Your task to perform on an android device: toggle show notifications on the lock screen Image 0: 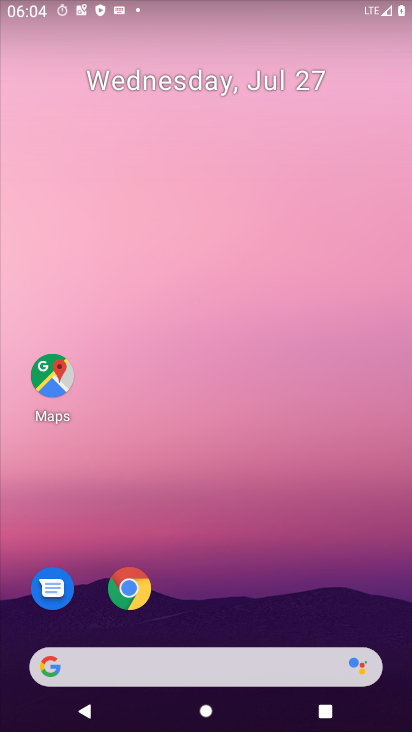
Step 0: drag from (229, 656) to (247, 79)
Your task to perform on an android device: toggle show notifications on the lock screen Image 1: 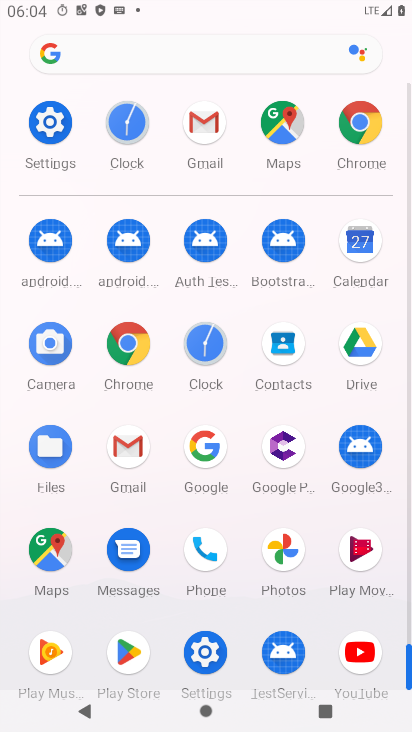
Step 1: click (58, 123)
Your task to perform on an android device: toggle show notifications on the lock screen Image 2: 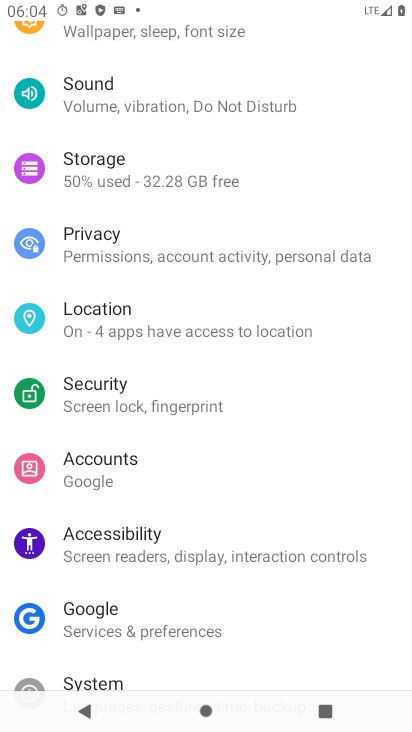
Step 2: drag from (128, 175) to (95, 710)
Your task to perform on an android device: toggle show notifications on the lock screen Image 3: 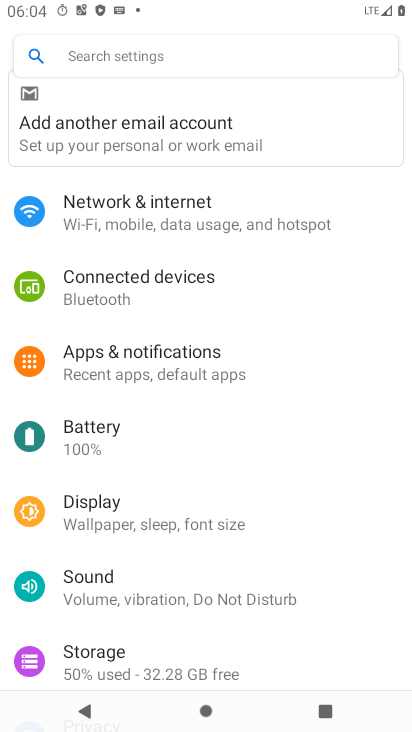
Step 3: click (128, 353)
Your task to perform on an android device: toggle show notifications on the lock screen Image 4: 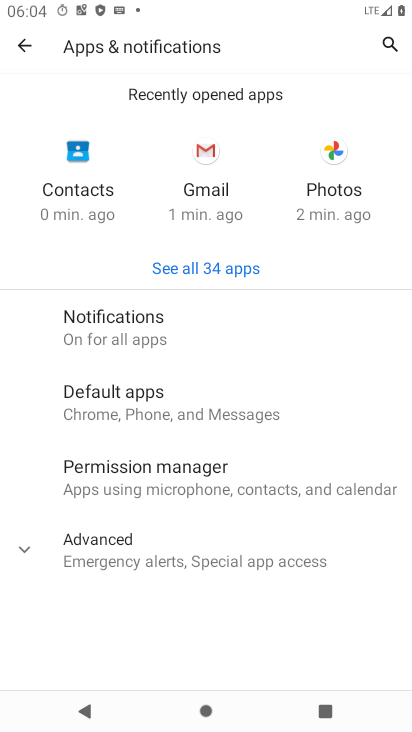
Step 4: click (160, 329)
Your task to perform on an android device: toggle show notifications on the lock screen Image 5: 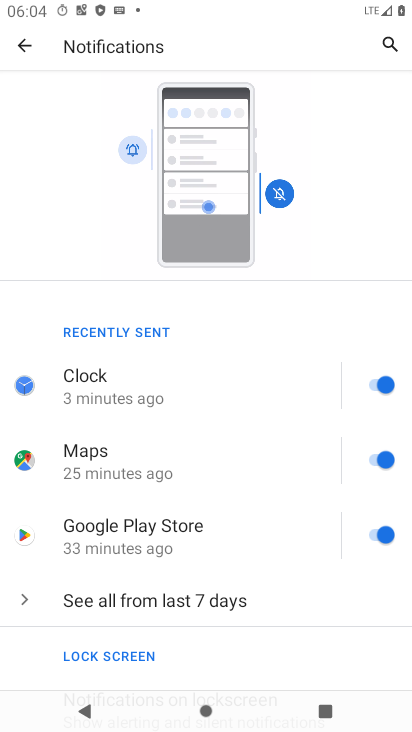
Step 5: drag from (146, 672) to (167, 269)
Your task to perform on an android device: toggle show notifications on the lock screen Image 6: 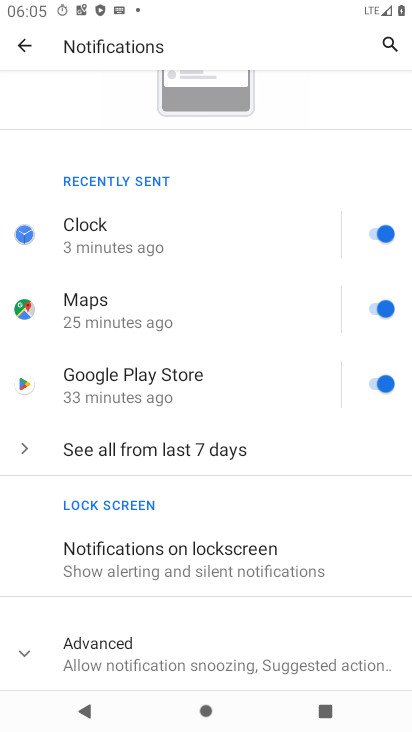
Step 6: click (183, 551)
Your task to perform on an android device: toggle show notifications on the lock screen Image 7: 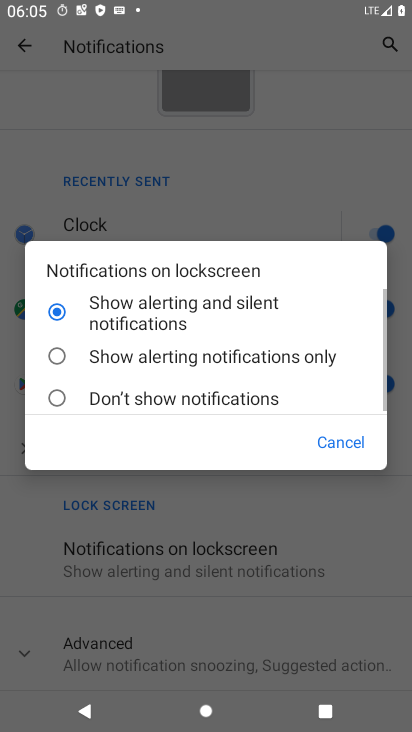
Step 7: click (61, 355)
Your task to perform on an android device: toggle show notifications on the lock screen Image 8: 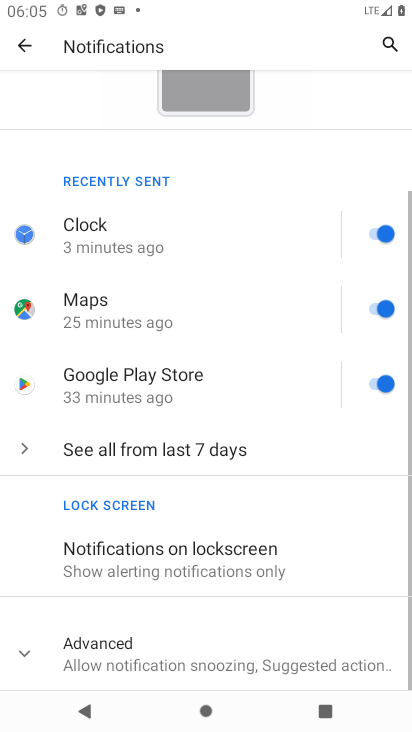
Step 8: task complete